Your task to perform on an android device: add a contact in the contacts app Image 0: 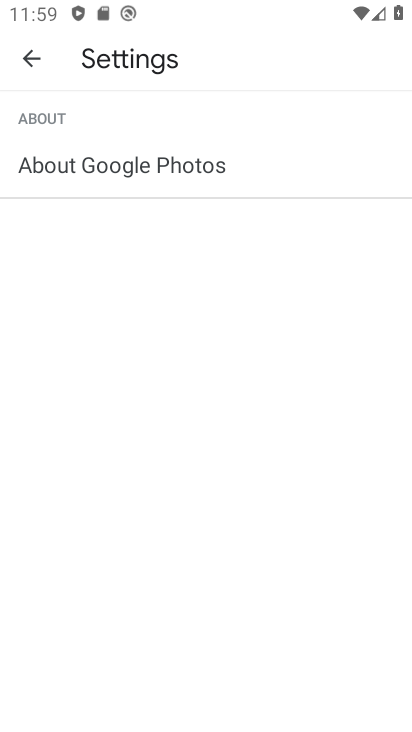
Step 0: press home button
Your task to perform on an android device: add a contact in the contacts app Image 1: 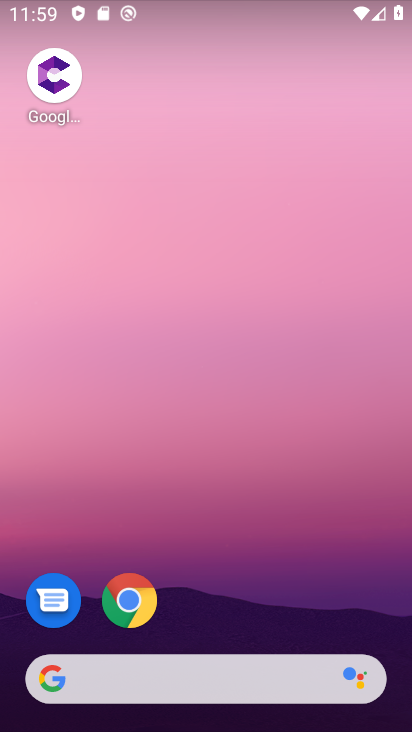
Step 1: drag from (299, 564) to (260, 69)
Your task to perform on an android device: add a contact in the contacts app Image 2: 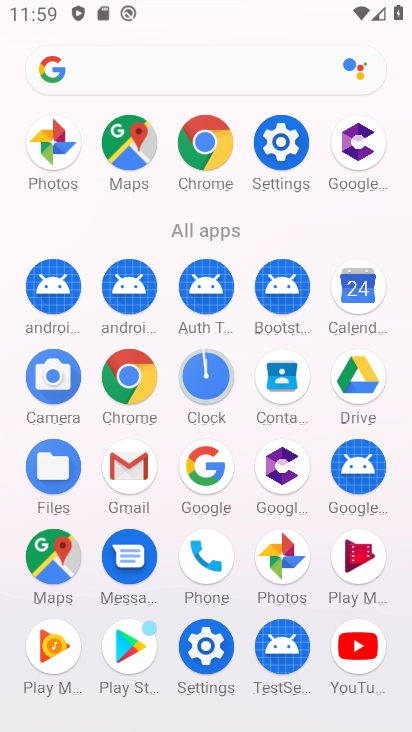
Step 2: click (274, 386)
Your task to perform on an android device: add a contact in the contacts app Image 3: 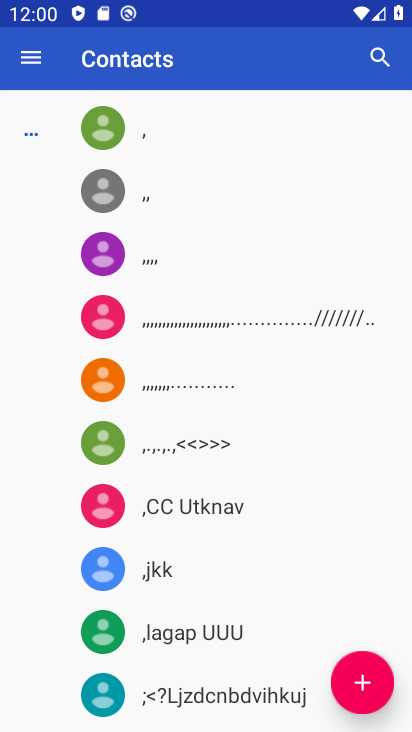
Step 3: click (360, 681)
Your task to perform on an android device: add a contact in the contacts app Image 4: 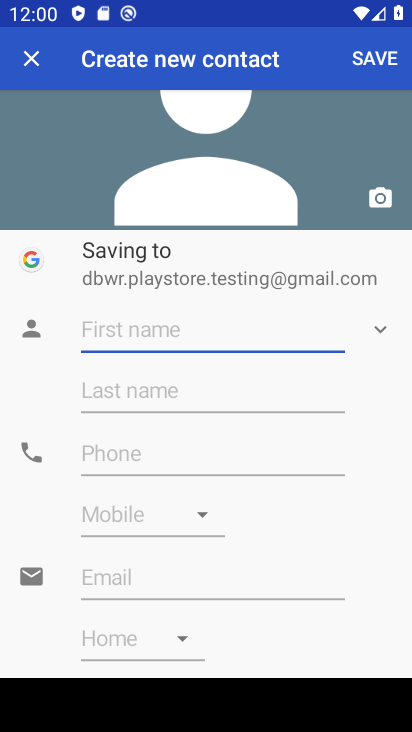
Step 4: click (221, 336)
Your task to perform on an android device: add a contact in the contacts app Image 5: 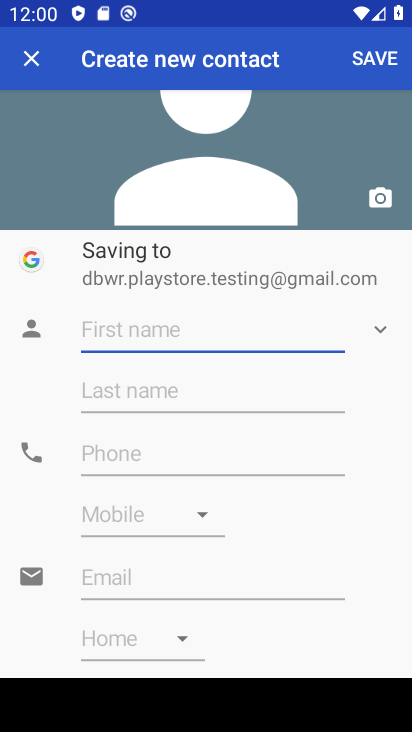
Step 5: click (221, 336)
Your task to perform on an android device: add a contact in the contacts app Image 6: 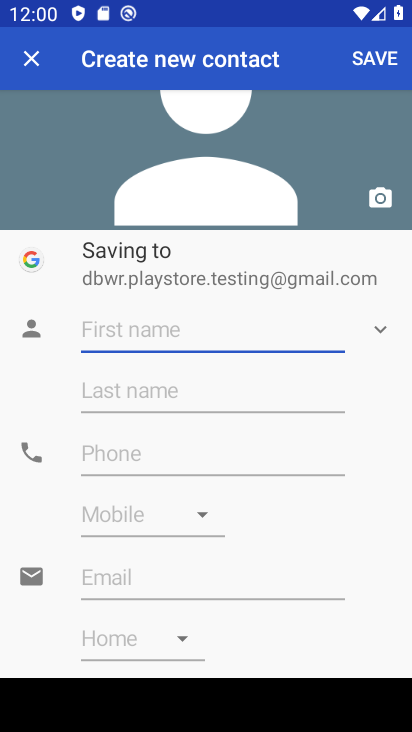
Step 6: type "zoya"
Your task to perform on an android device: add a contact in the contacts app Image 7: 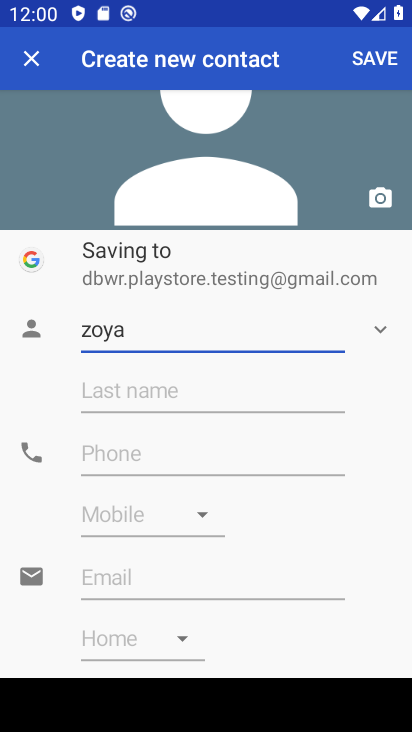
Step 7: click (127, 449)
Your task to perform on an android device: add a contact in the contacts app Image 8: 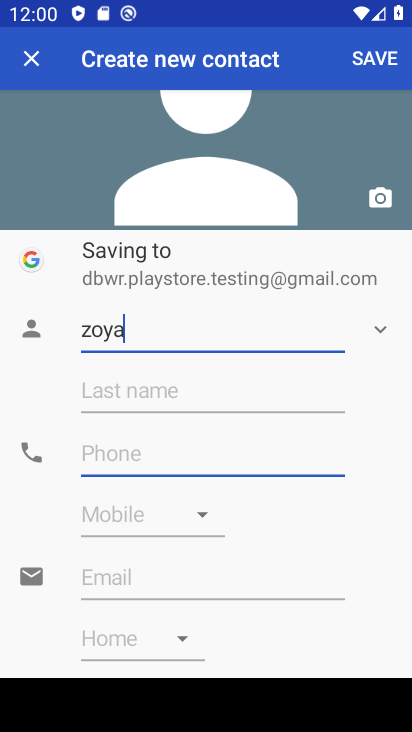
Step 8: click (127, 449)
Your task to perform on an android device: add a contact in the contacts app Image 9: 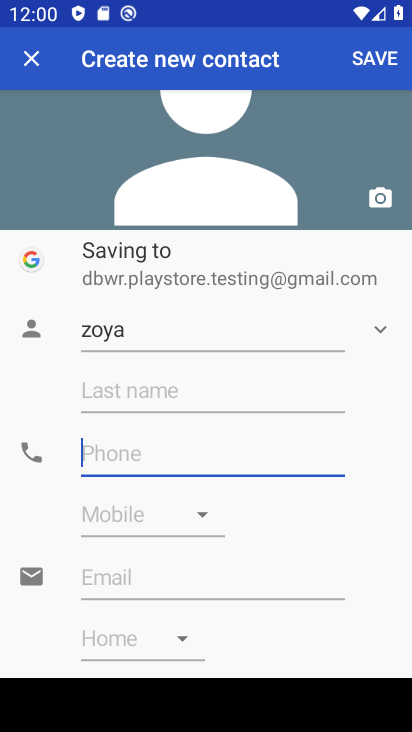
Step 9: click (127, 449)
Your task to perform on an android device: add a contact in the contacts app Image 10: 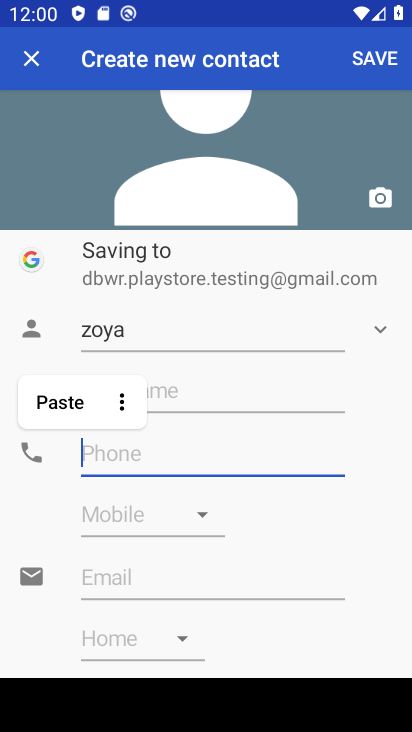
Step 10: type "8775677"
Your task to perform on an android device: add a contact in the contacts app Image 11: 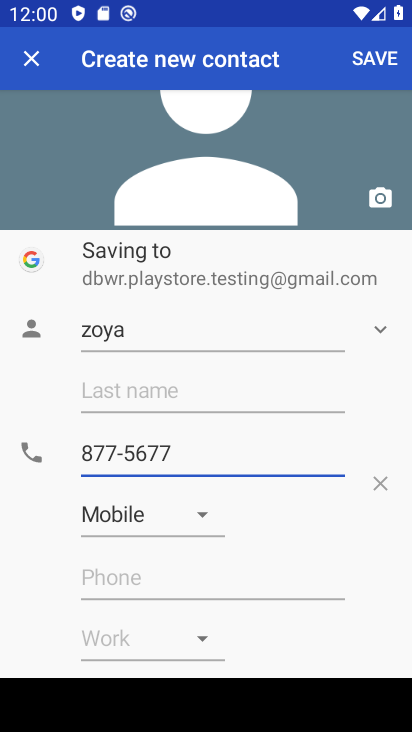
Step 11: click (377, 59)
Your task to perform on an android device: add a contact in the contacts app Image 12: 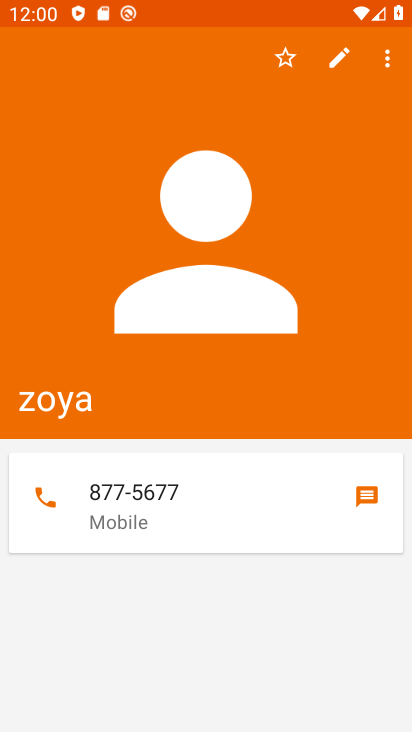
Step 12: task complete